Your task to perform on an android device: Open Google Chrome Image 0: 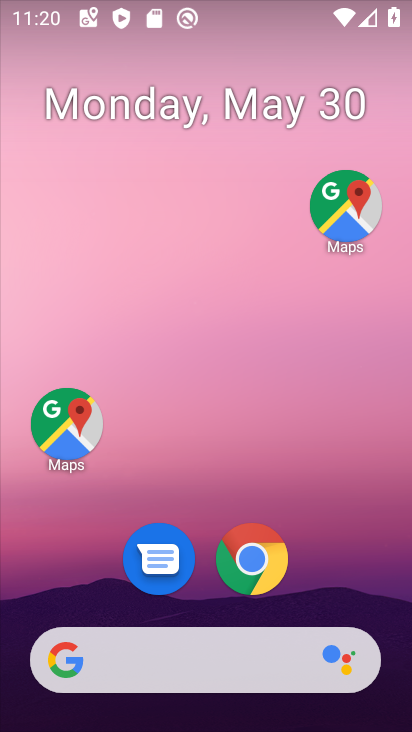
Step 0: click (259, 560)
Your task to perform on an android device: Open Google Chrome Image 1: 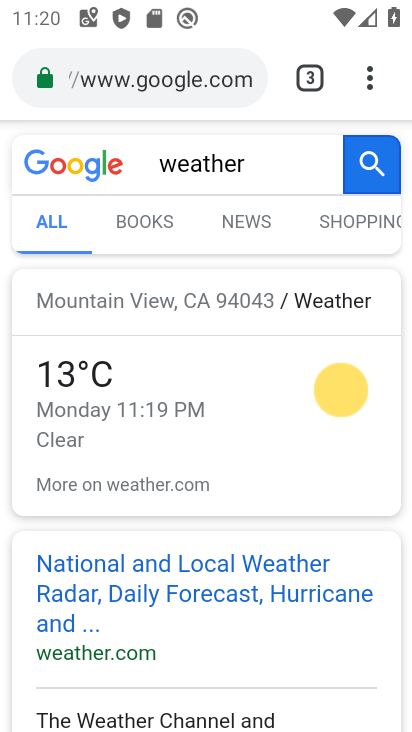
Step 1: task complete